Your task to perform on an android device: Open battery settings Image 0: 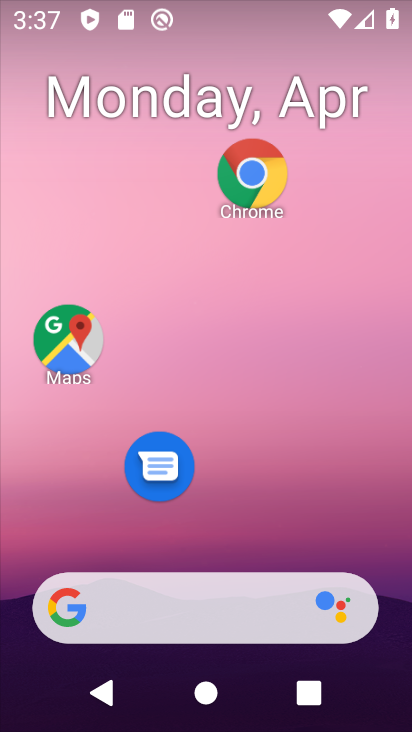
Step 0: drag from (392, 602) to (315, 100)
Your task to perform on an android device: Open battery settings Image 1: 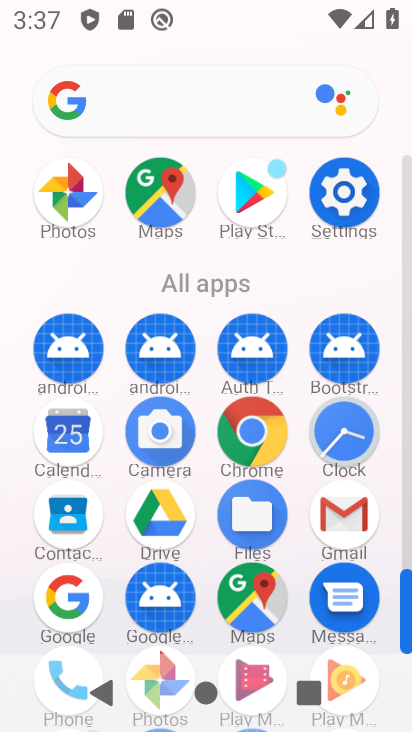
Step 1: click (353, 181)
Your task to perform on an android device: Open battery settings Image 2: 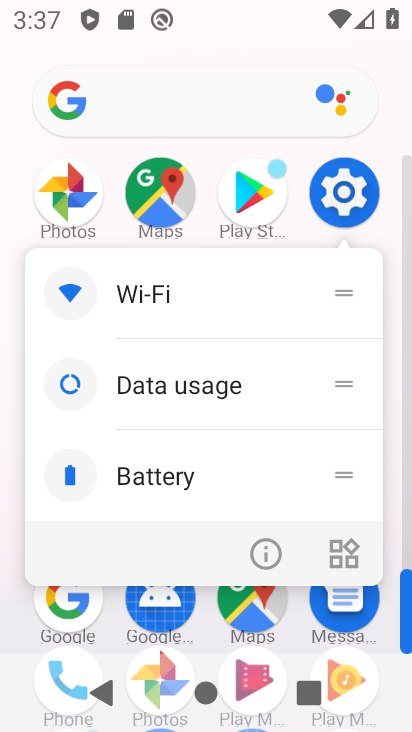
Step 2: click (358, 198)
Your task to perform on an android device: Open battery settings Image 3: 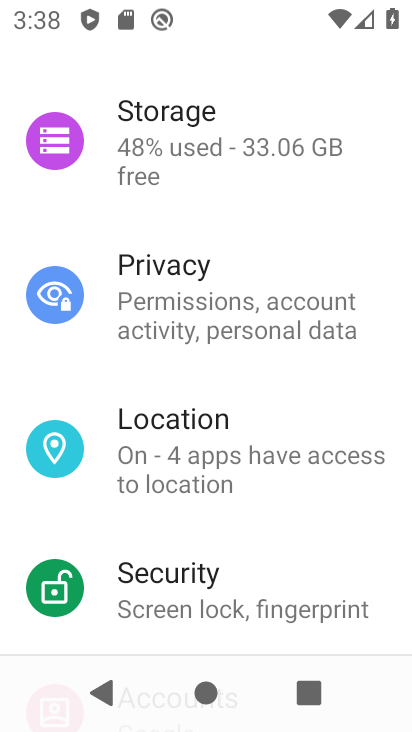
Step 3: drag from (239, 196) to (200, 581)
Your task to perform on an android device: Open battery settings Image 4: 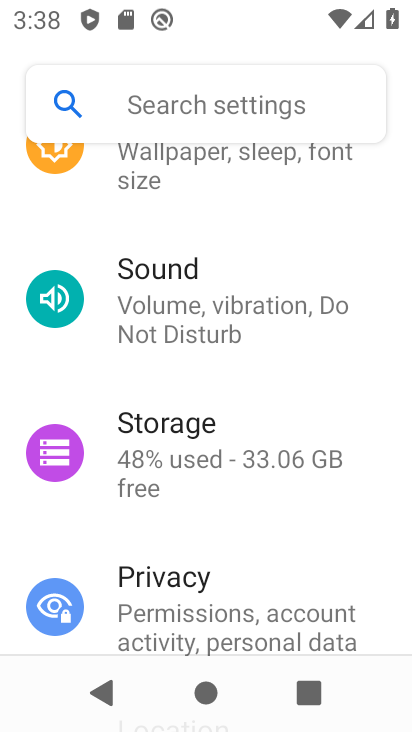
Step 4: drag from (230, 213) to (250, 511)
Your task to perform on an android device: Open battery settings Image 5: 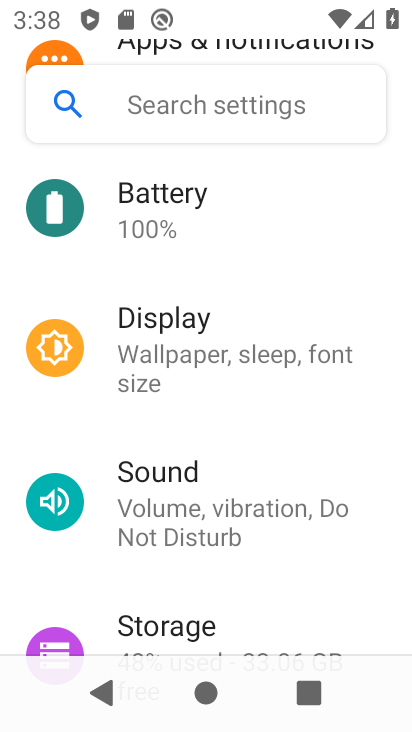
Step 5: click (188, 232)
Your task to perform on an android device: Open battery settings Image 6: 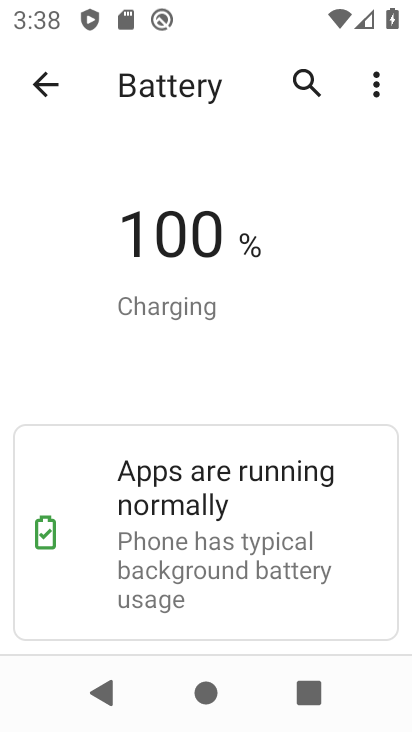
Step 6: task complete